Your task to perform on an android device: Go to battery settings Image 0: 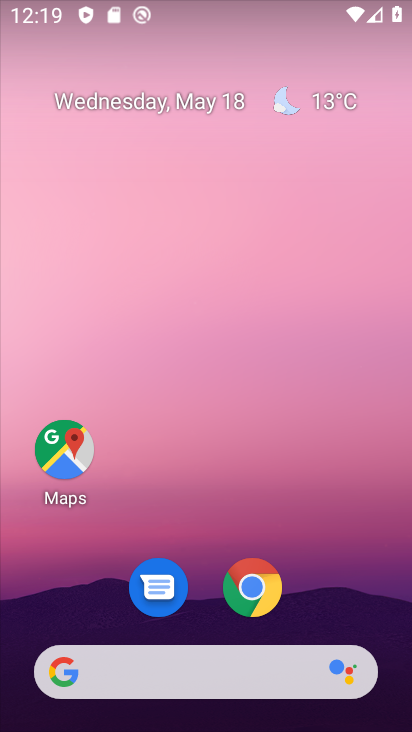
Step 0: drag from (151, 610) to (260, 105)
Your task to perform on an android device: Go to battery settings Image 1: 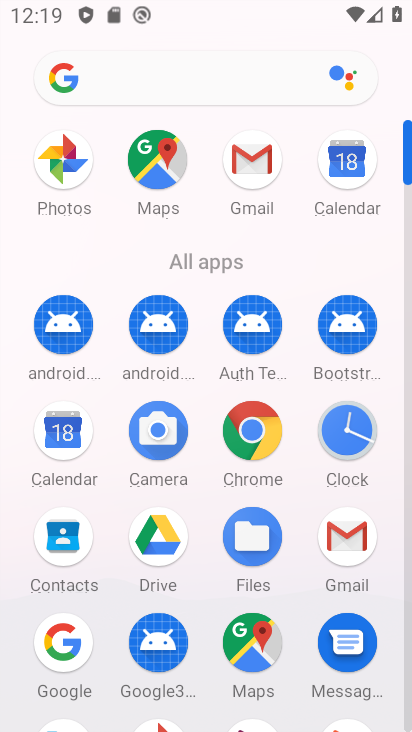
Step 1: drag from (185, 591) to (247, 122)
Your task to perform on an android device: Go to battery settings Image 2: 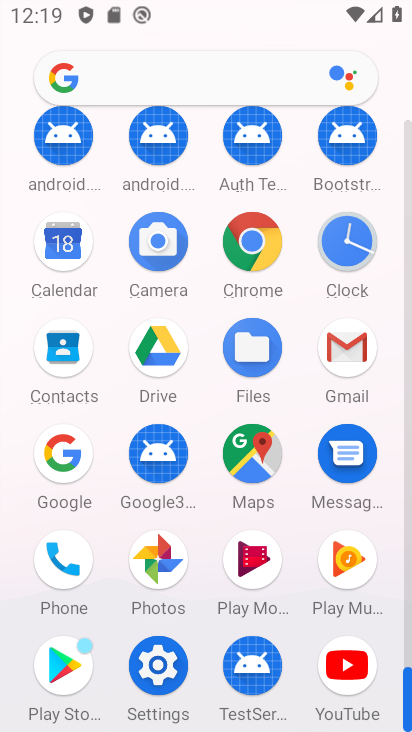
Step 2: click (153, 675)
Your task to perform on an android device: Go to battery settings Image 3: 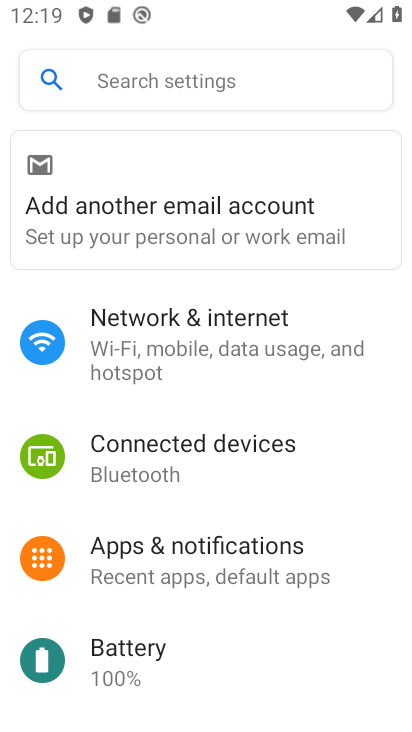
Step 3: click (164, 665)
Your task to perform on an android device: Go to battery settings Image 4: 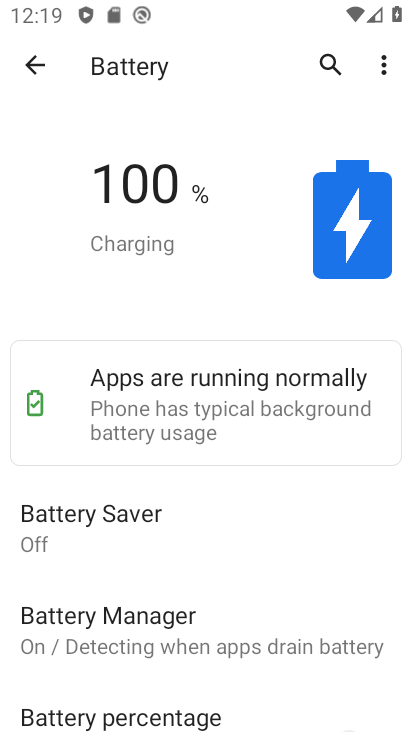
Step 4: task complete